Your task to perform on an android device: snooze an email in the gmail app Image 0: 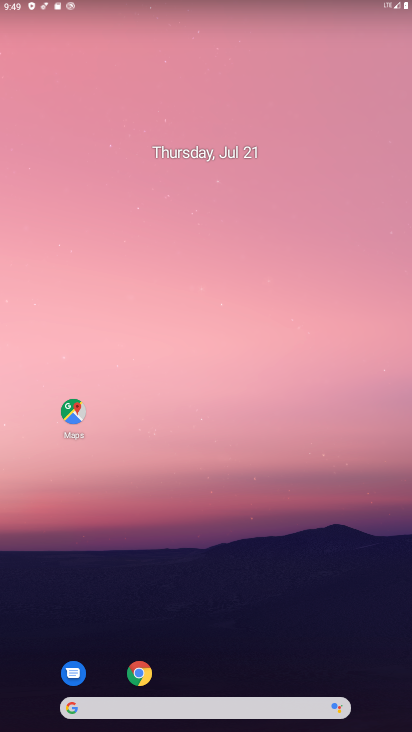
Step 0: drag from (186, 658) to (188, 198)
Your task to perform on an android device: snooze an email in the gmail app Image 1: 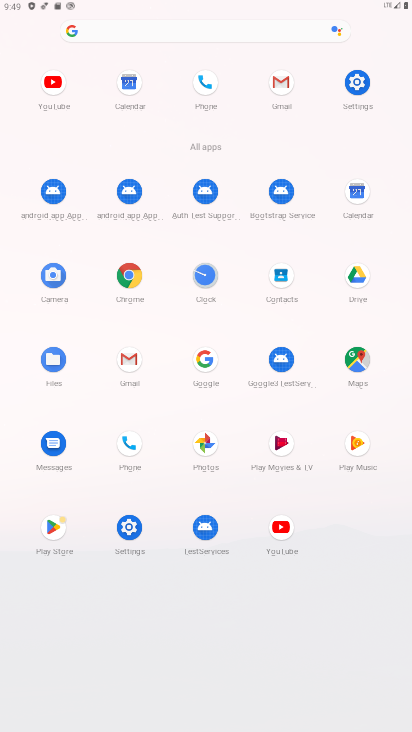
Step 1: click (130, 360)
Your task to perform on an android device: snooze an email in the gmail app Image 2: 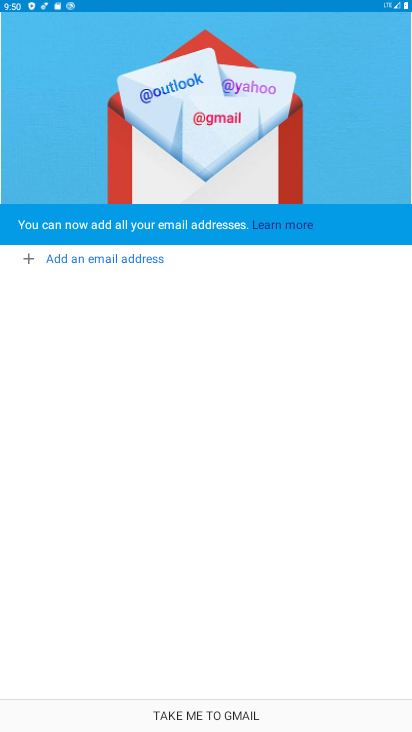
Step 2: click (203, 707)
Your task to perform on an android device: snooze an email in the gmail app Image 3: 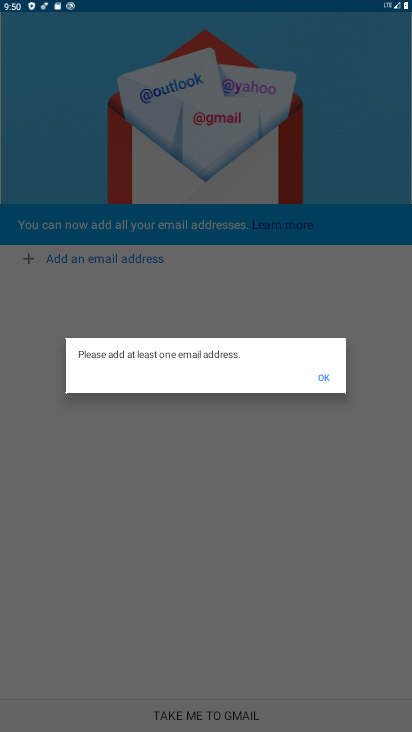
Step 3: click (325, 374)
Your task to perform on an android device: snooze an email in the gmail app Image 4: 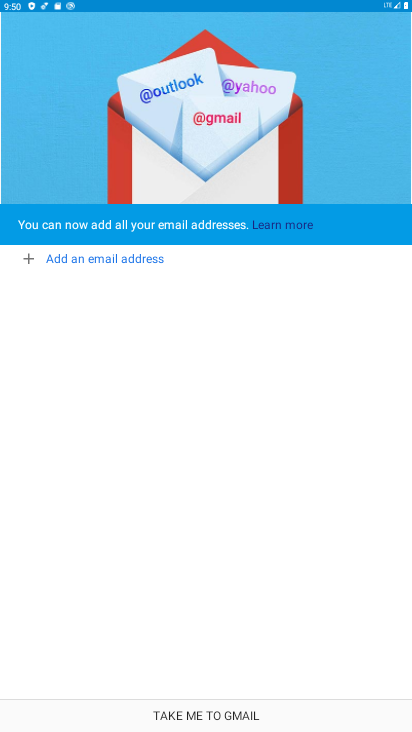
Step 4: task complete